Your task to perform on an android device: turn on bluetooth scan Image 0: 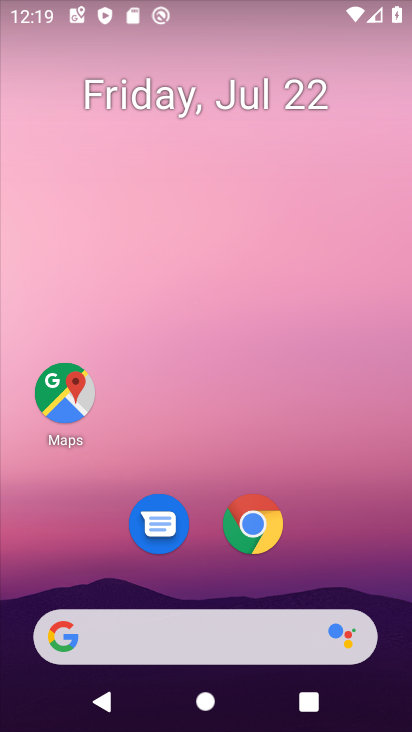
Step 0: drag from (312, 474) to (346, 64)
Your task to perform on an android device: turn on bluetooth scan Image 1: 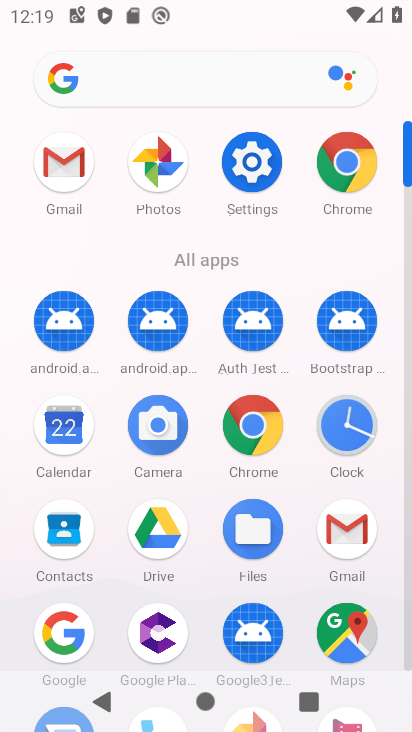
Step 1: click (260, 167)
Your task to perform on an android device: turn on bluetooth scan Image 2: 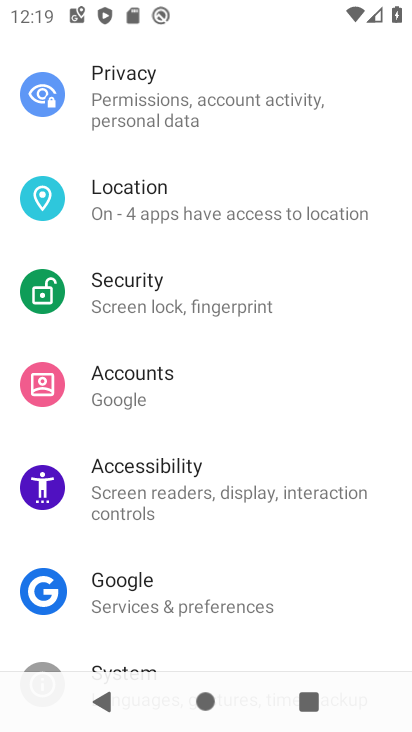
Step 2: click (286, 199)
Your task to perform on an android device: turn on bluetooth scan Image 3: 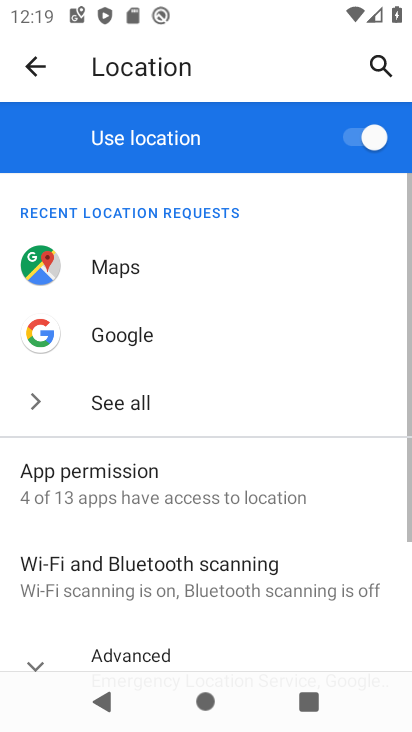
Step 3: click (242, 572)
Your task to perform on an android device: turn on bluetooth scan Image 4: 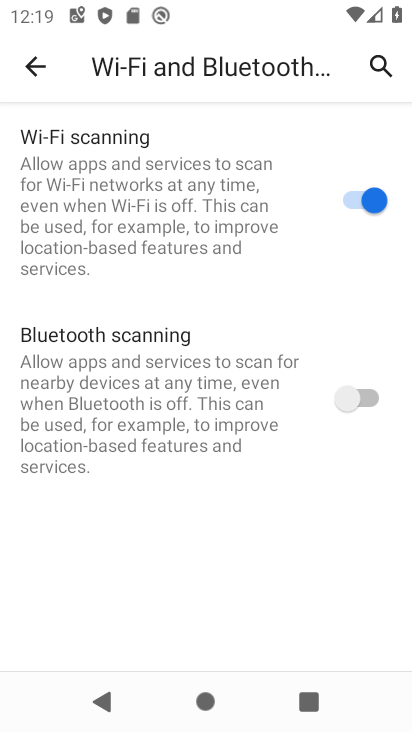
Step 4: click (366, 401)
Your task to perform on an android device: turn on bluetooth scan Image 5: 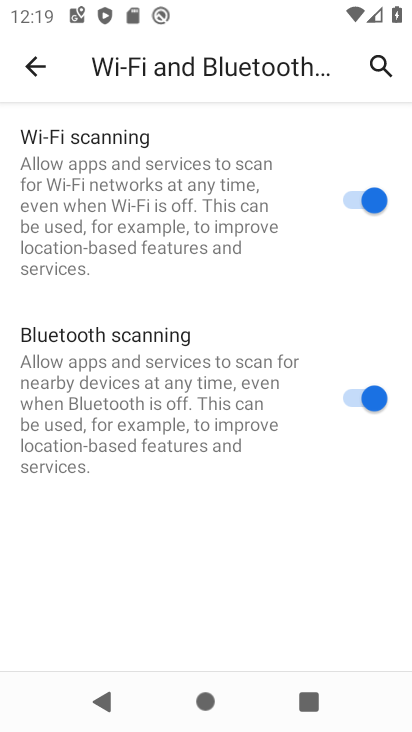
Step 5: task complete